Your task to perform on an android device: change keyboard looks Image 0: 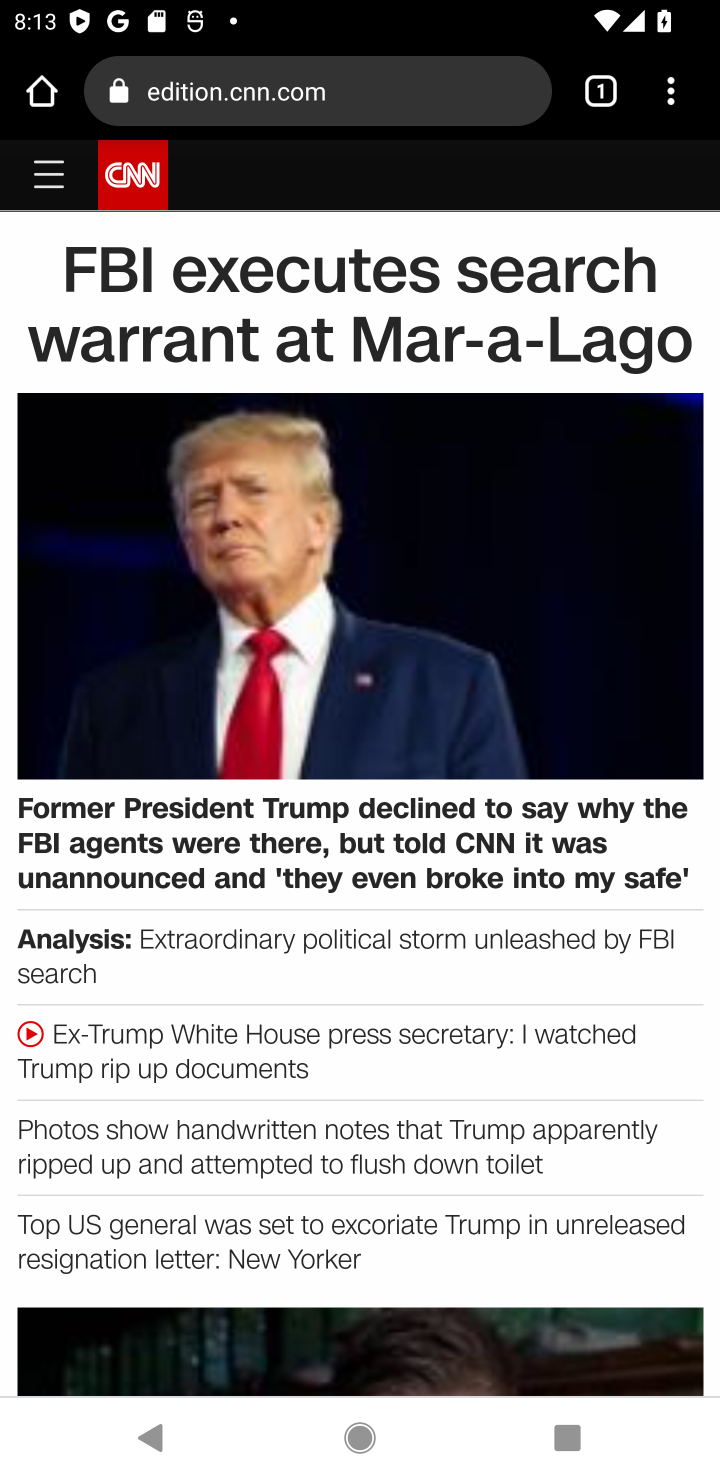
Step 0: task complete